Your task to perform on an android device: empty trash in google photos Image 0: 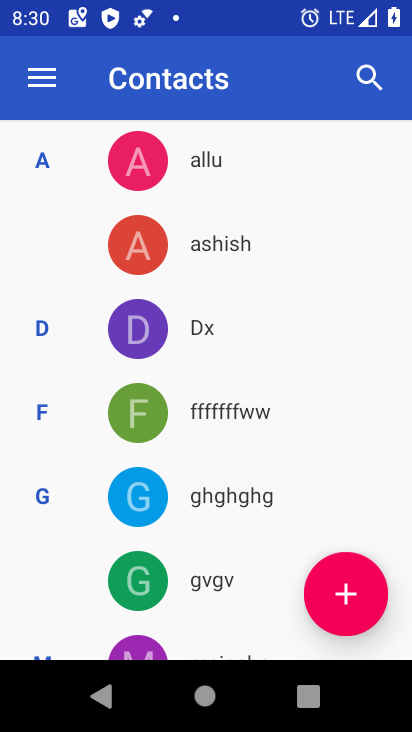
Step 0: press back button
Your task to perform on an android device: empty trash in google photos Image 1: 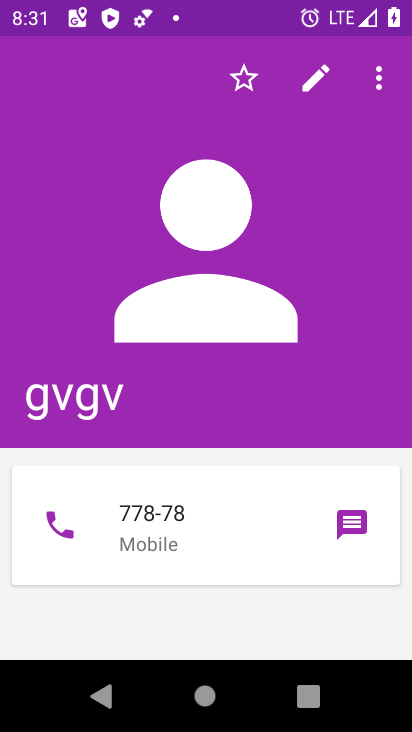
Step 1: press back button
Your task to perform on an android device: empty trash in google photos Image 2: 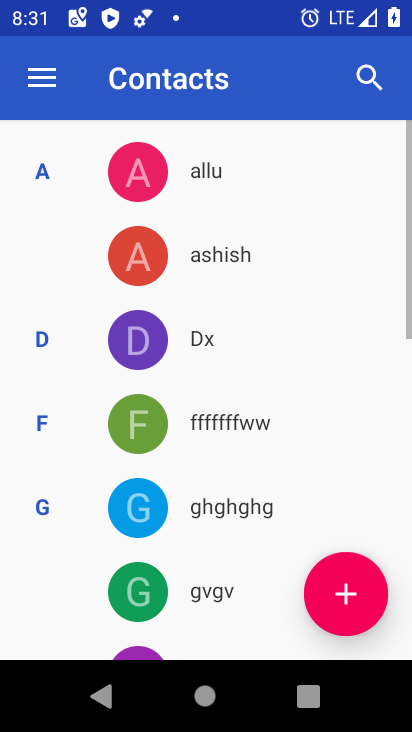
Step 2: press back button
Your task to perform on an android device: empty trash in google photos Image 3: 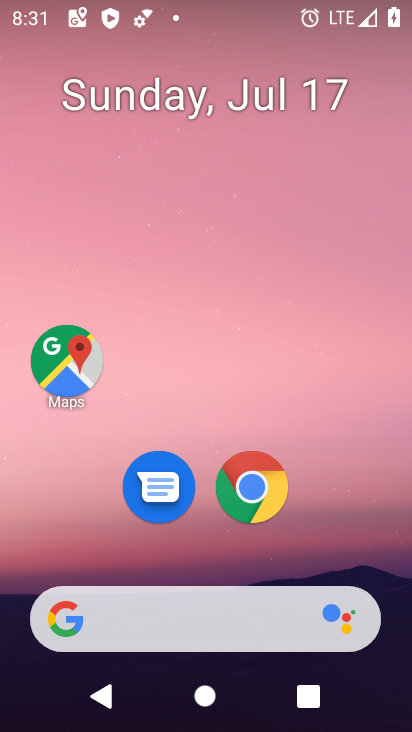
Step 3: drag from (118, 566) to (253, 40)
Your task to perform on an android device: empty trash in google photos Image 4: 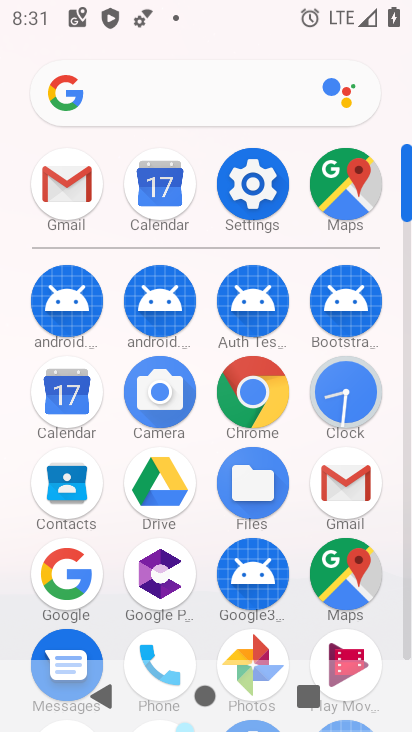
Step 4: click (246, 653)
Your task to perform on an android device: empty trash in google photos Image 5: 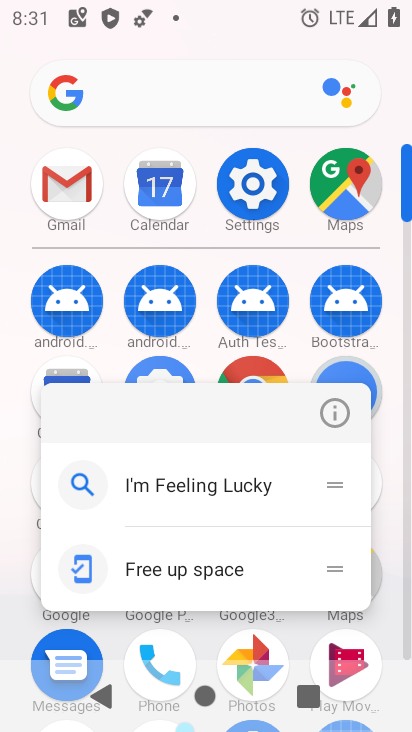
Step 5: click (250, 646)
Your task to perform on an android device: empty trash in google photos Image 6: 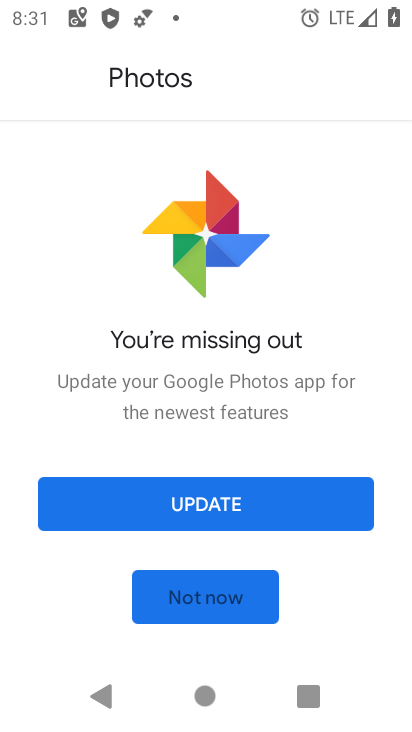
Step 6: click (241, 600)
Your task to perform on an android device: empty trash in google photos Image 7: 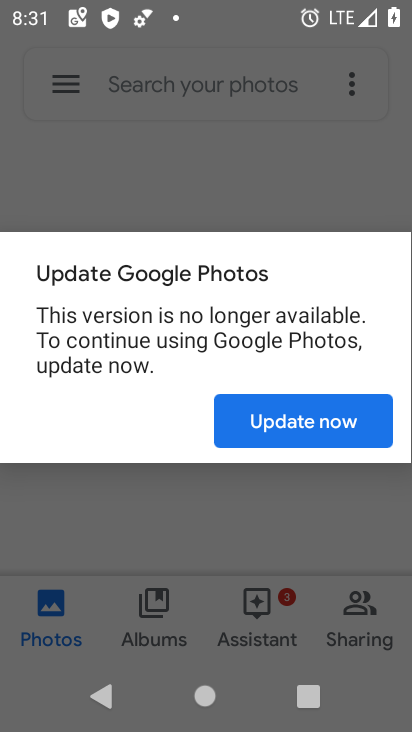
Step 7: click (276, 421)
Your task to perform on an android device: empty trash in google photos Image 8: 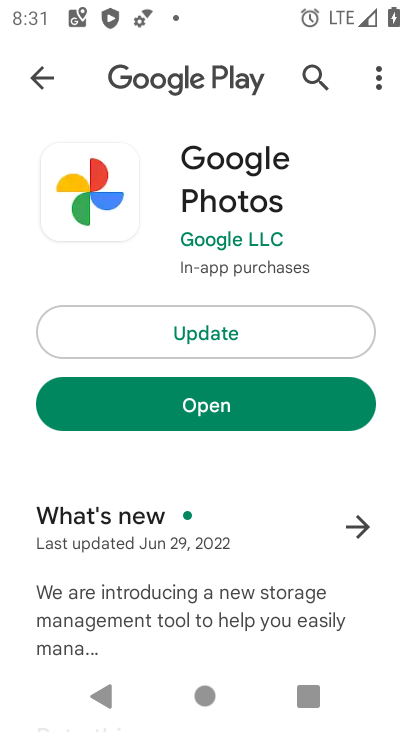
Step 8: click (43, 88)
Your task to perform on an android device: empty trash in google photos Image 9: 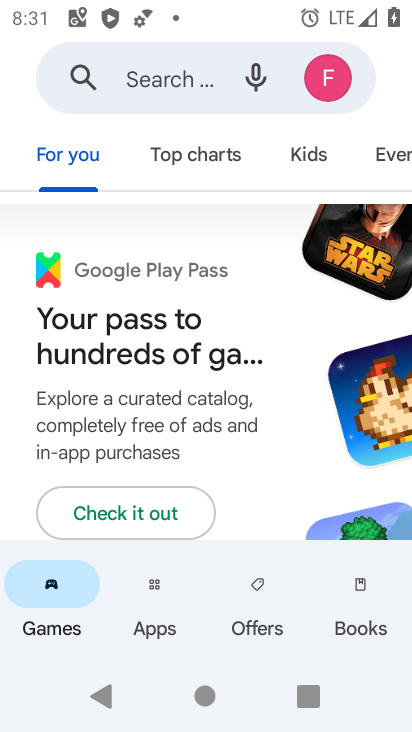
Step 9: press back button
Your task to perform on an android device: empty trash in google photos Image 10: 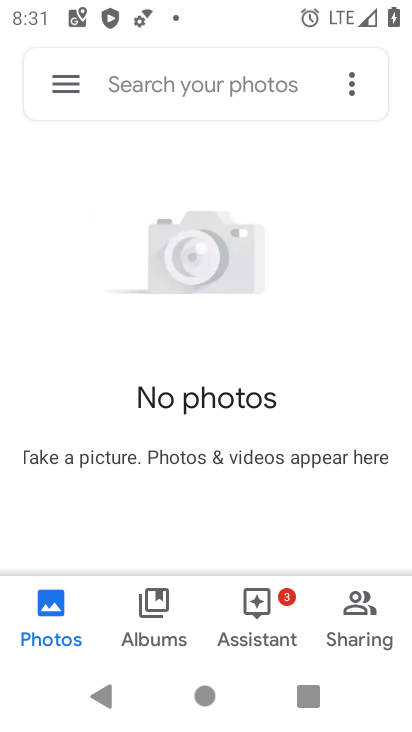
Step 10: click (97, 79)
Your task to perform on an android device: empty trash in google photos Image 11: 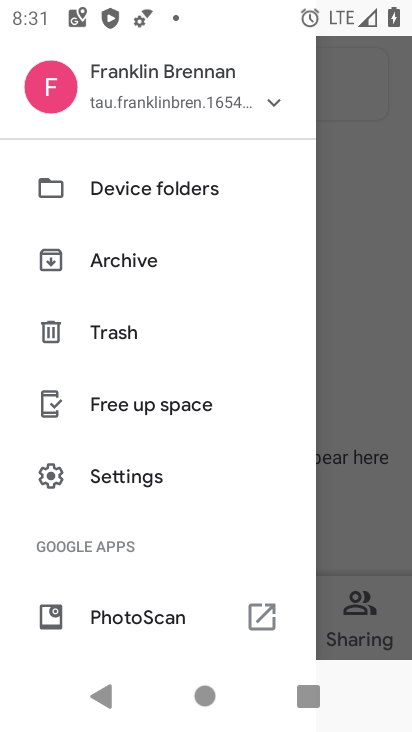
Step 11: click (110, 329)
Your task to perform on an android device: empty trash in google photos Image 12: 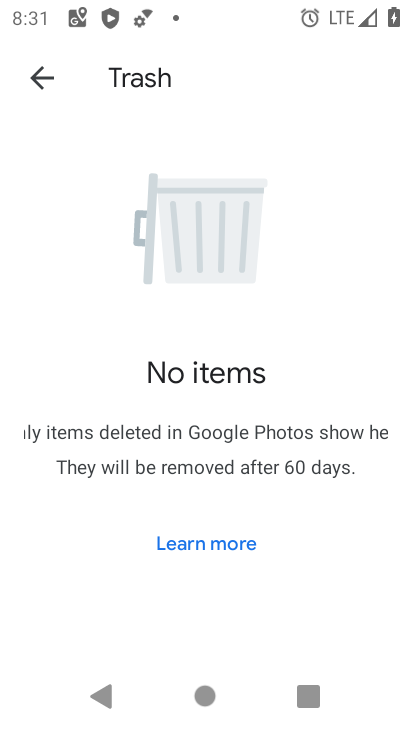
Step 12: task complete